Your task to perform on an android device: Show me popular games on the Play Store Image 0: 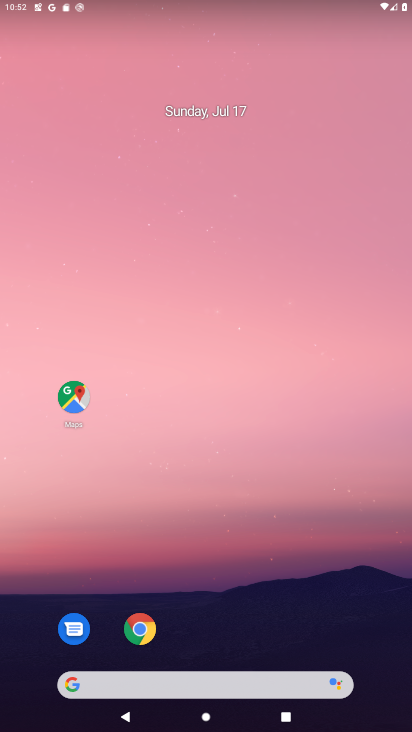
Step 0: drag from (183, 654) to (249, 95)
Your task to perform on an android device: Show me popular games on the Play Store Image 1: 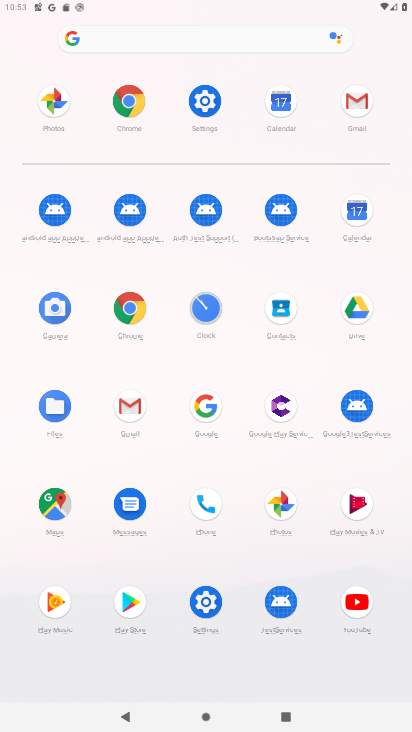
Step 1: click (131, 603)
Your task to perform on an android device: Show me popular games on the Play Store Image 2: 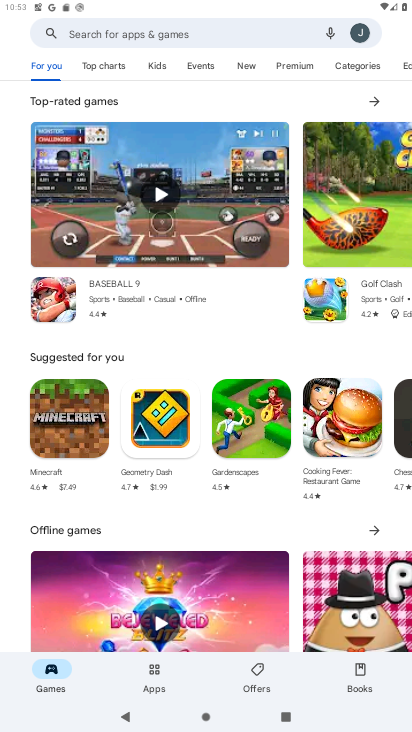
Step 2: click (215, 32)
Your task to perform on an android device: Show me popular games on the Play Store Image 3: 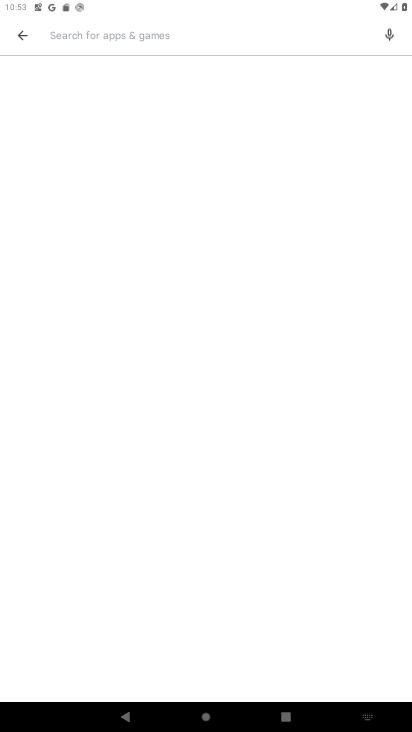
Step 3: type "popular games"
Your task to perform on an android device: Show me popular games on the Play Store Image 4: 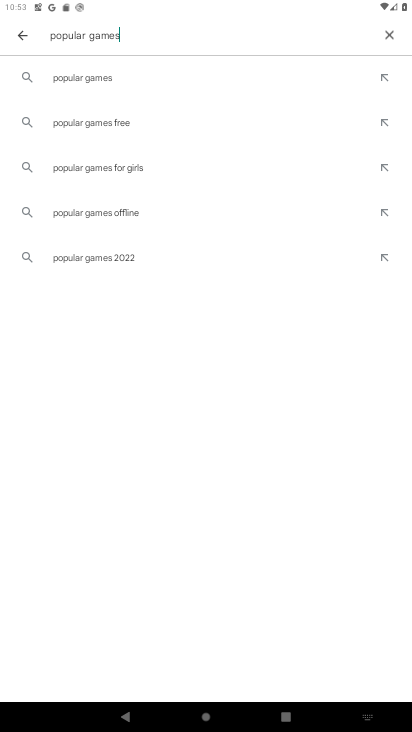
Step 4: click (97, 80)
Your task to perform on an android device: Show me popular games on the Play Store Image 5: 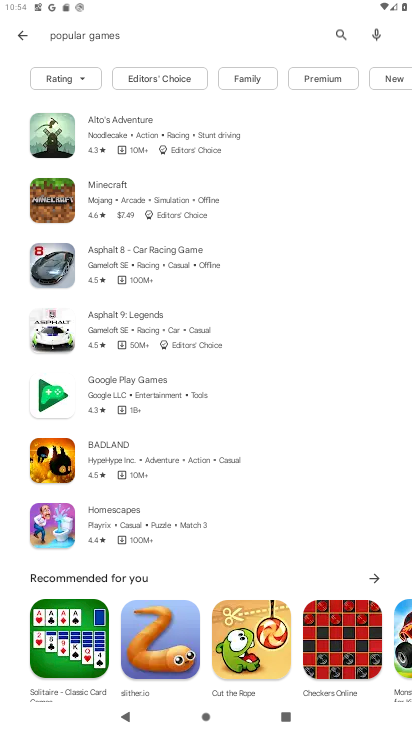
Step 5: task complete